Your task to perform on an android device: turn off picture-in-picture Image 0: 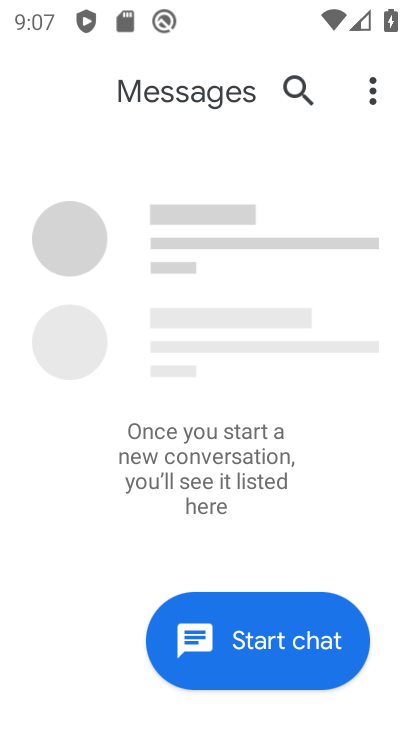
Step 0: press home button
Your task to perform on an android device: turn off picture-in-picture Image 1: 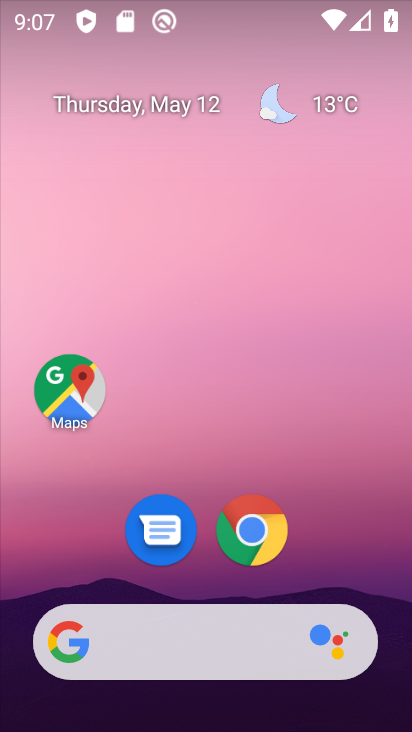
Step 1: drag from (304, 484) to (301, 286)
Your task to perform on an android device: turn off picture-in-picture Image 2: 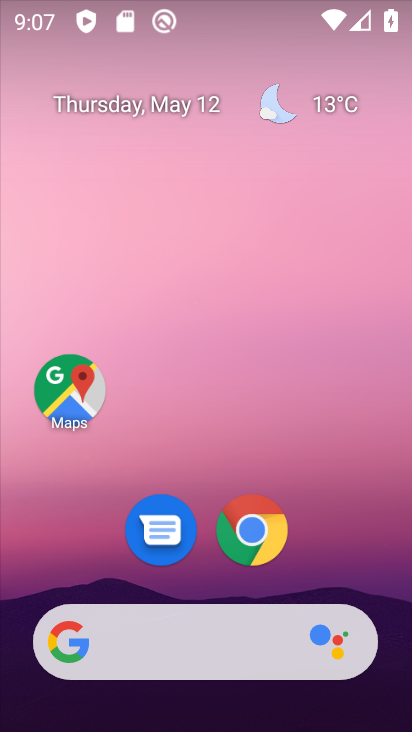
Step 2: drag from (332, 509) to (370, 145)
Your task to perform on an android device: turn off picture-in-picture Image 3: 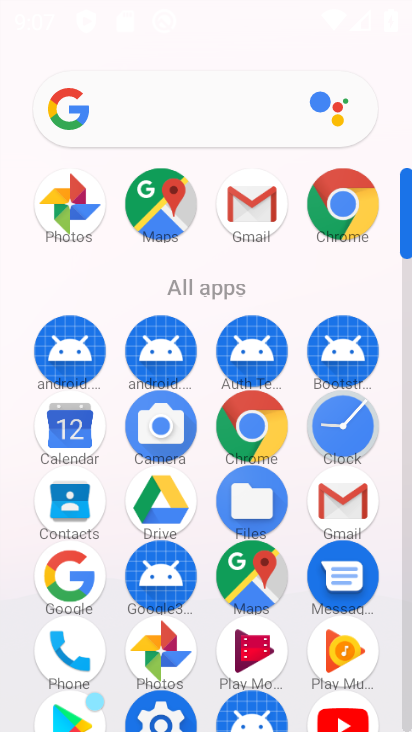
Step 3: click (168, 706)
Your task to perform on an android device: turn off picture-in-picture Image 4: 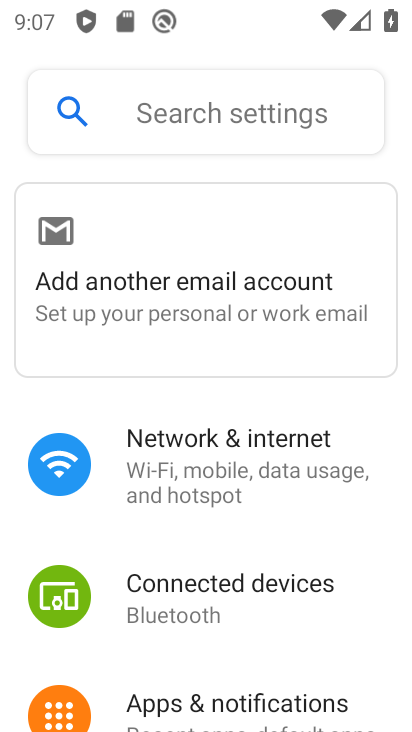
Step 4: drag from (305, 647) to (393, 203)
Your task to perform on an android device: turn off picture-in-picture Image 5: 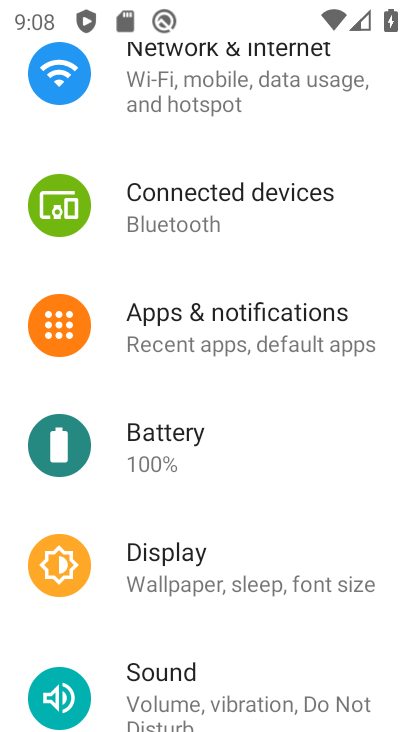
Step 5: drag from (237, 667) to (333, 265)
Your task to perform on an android device: turn off picture-in-picture Image 6: 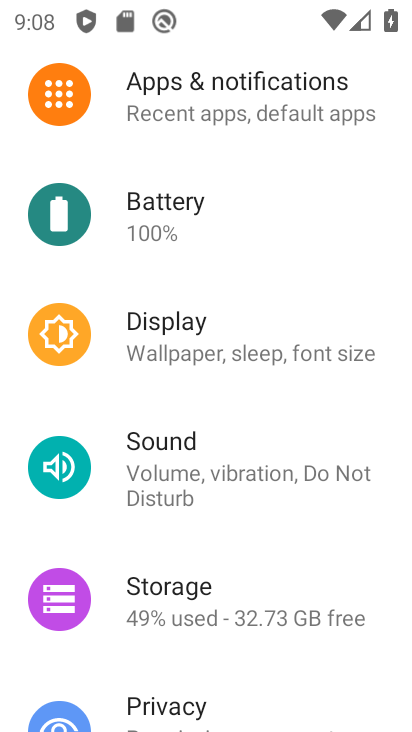
Step 6: drag from (237, 661) to (285, 210)
Your task to perform on an android device: turn off picture-in-picture Image 7: 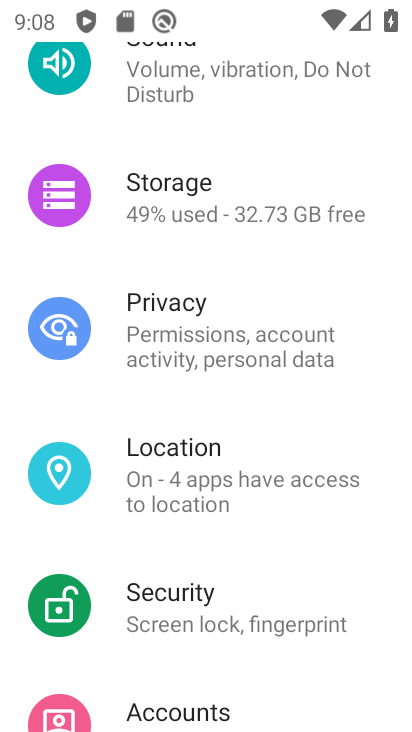
Step 7: drag from (284, 536) to (347, 196)
Your task to perform on an android device: turn off picture-in-picture Image 8: 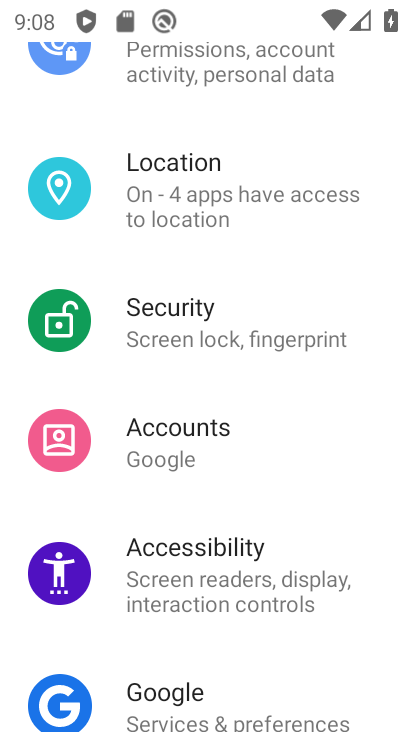
Step 8: drag from (258, 490) to (275, 189)
Your task to perform on an android device: turn off picture-in-picture Image 9: 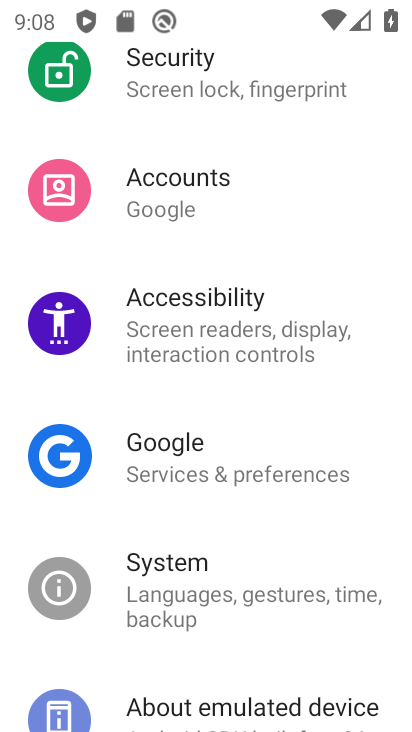
Step 9: drag from (252, 546) to (373, 82)
Your task to perform on an android device: turn off picture-in-picture Image 10: 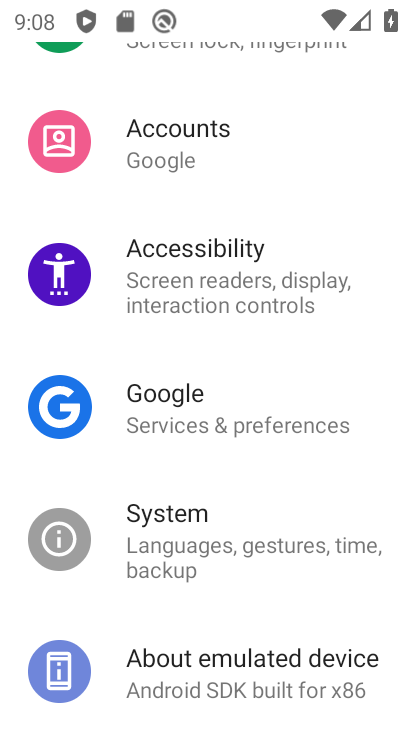
Step 10: click (320, 660)
Your task to perform on an android device: turn off picture-in-picture Image 11: 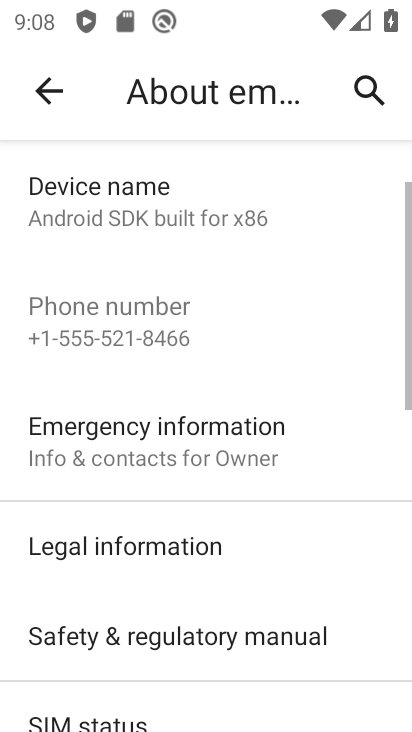
Step 11: task complete